Your task to perform on an android device: Set the phone to "Do not disturb". Image 0: 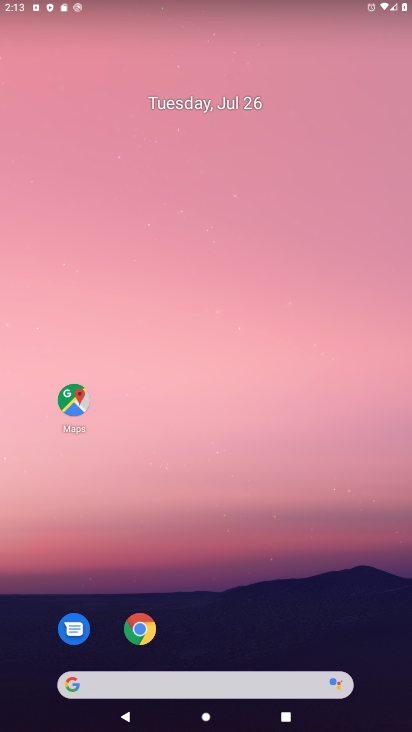
Step 0: drag from (382, 682) to (331, 284)
Your task to perform on an android device: Set the phone to "Do not disturb". Image 1: 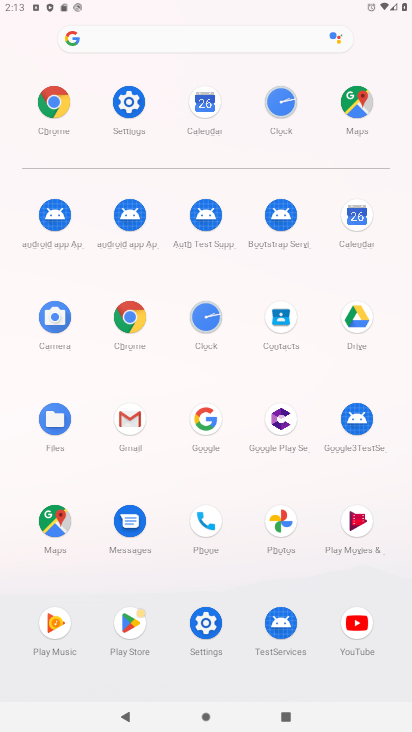
Step 1: click (204, 626)
Your task to perform on an android device: Set the phone to "Do not disturb". Image 2: 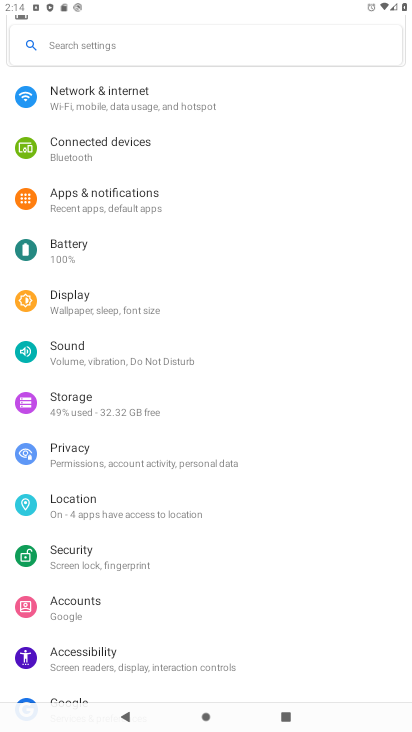
Step 2: click (112, 350)
Your task to perform on an android device: Set the phone to "Do not disturb". Image 3: 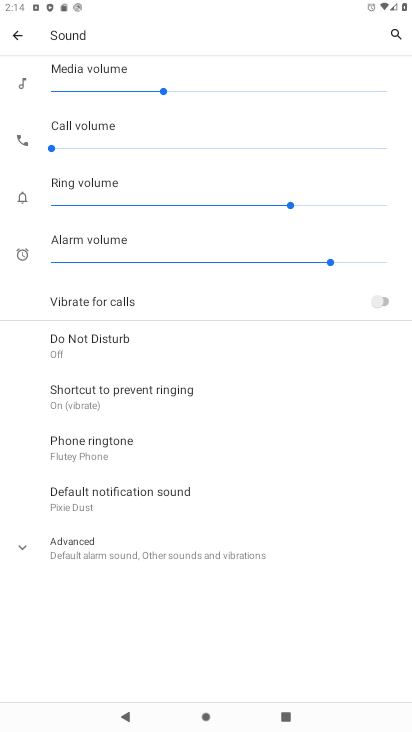
Step 3: click (75, 341)
Your task to perform on an android device: Set the phone to "Do not disturb". Image 4: 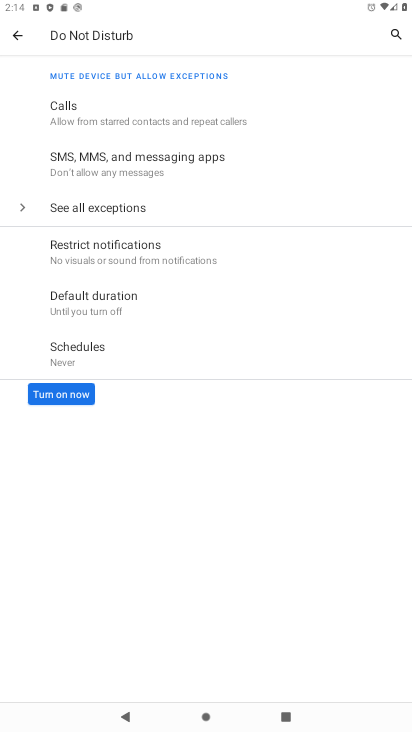
Step 4: click (61, 397)
Your task to perform on an android device: Set the phone to "Do not disturb". Image 5: 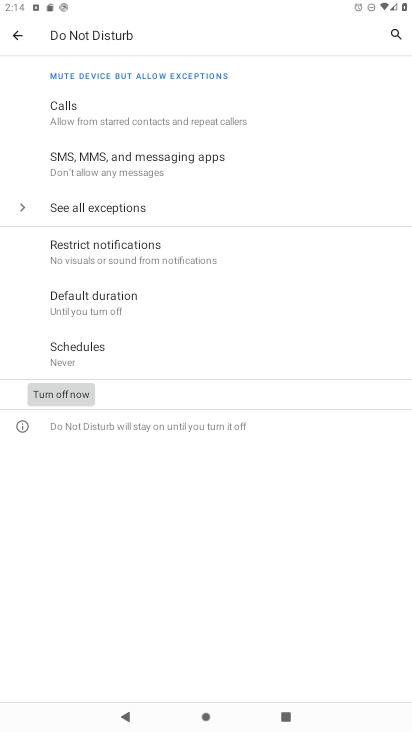
Step 5: task complete